Your task to perform on an android device: Clear the cart on ebay.com. Search for "beats solo 3" on ebay.com, select the first entry, add it to the cart, then select checkout. Image 0: 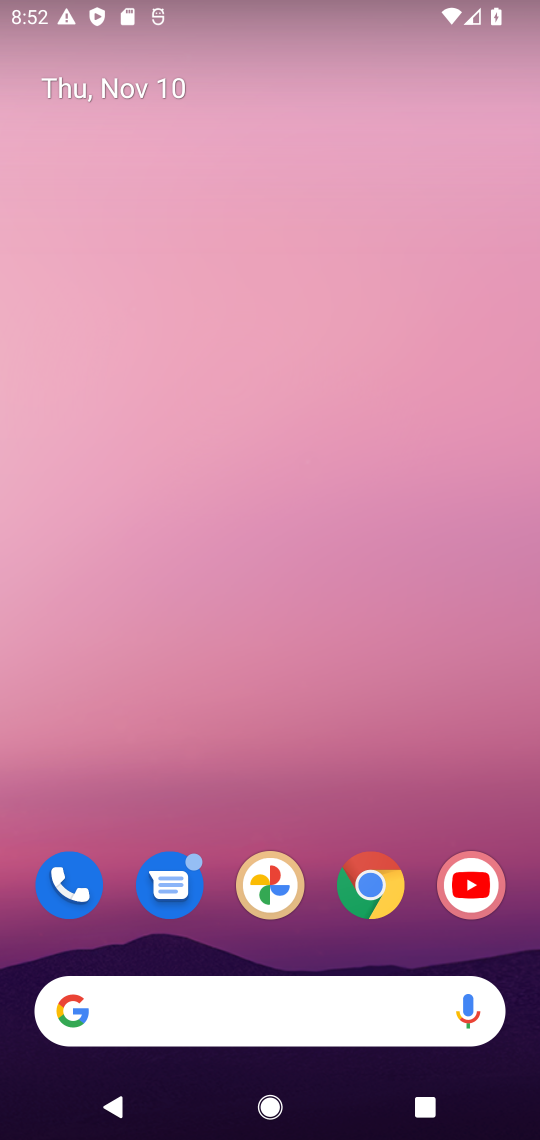
Step 0: click (375, 893)
Your task to perform on an android device: Clear the cart on ebay.com. Search for "beats solo 3" on ebay.com, select the first entry, add it to the cart, then select checkout. Image 1: 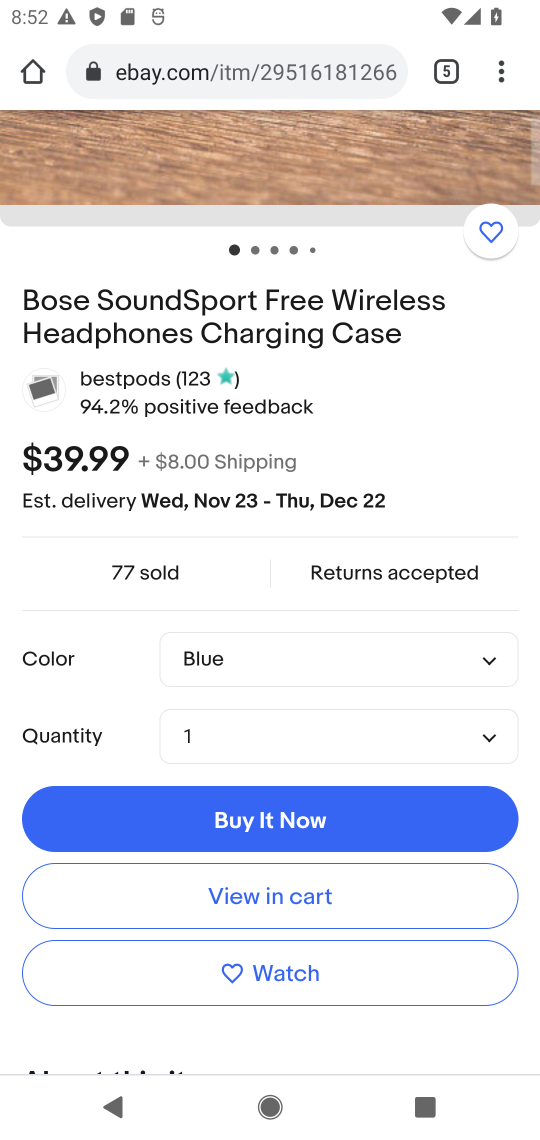
Step 1: drag from (374, 184) to (375, 888)
Your task to perform on an android device: Clear the cart on ebay.com. Search for "beats solo 3" on ebay.com, select the first entry, add it to the cart, then select checkout. Image 2: 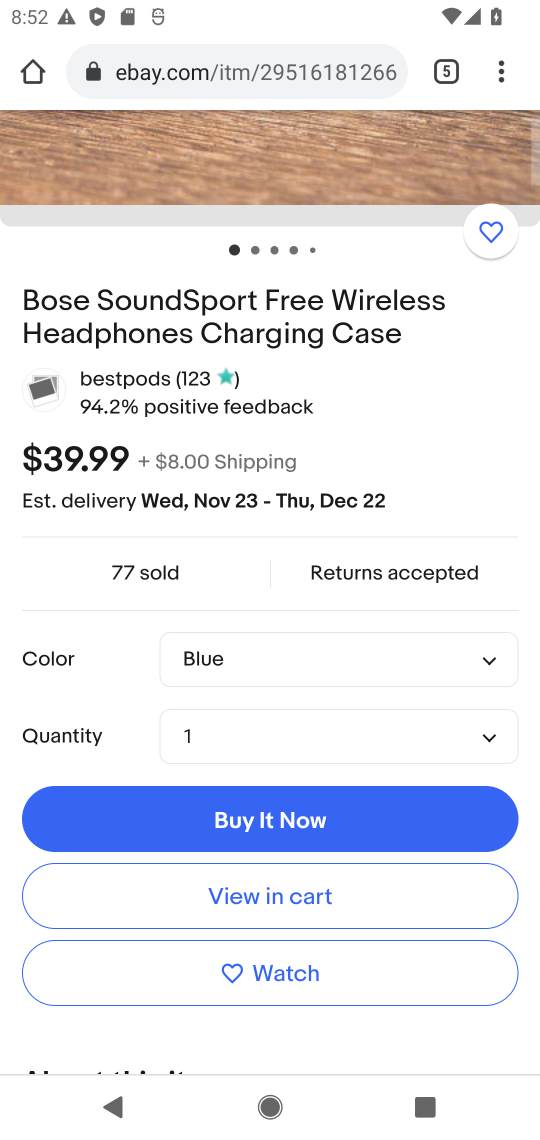
Step 2: drag from (384, 186) to (466, 506)
Your task to perform on an android device: Clear the cart on ebay.com. Search for "beats solo 3" on ebay.com, select the first entry, add it to the cart, then select checkout. Image 3: 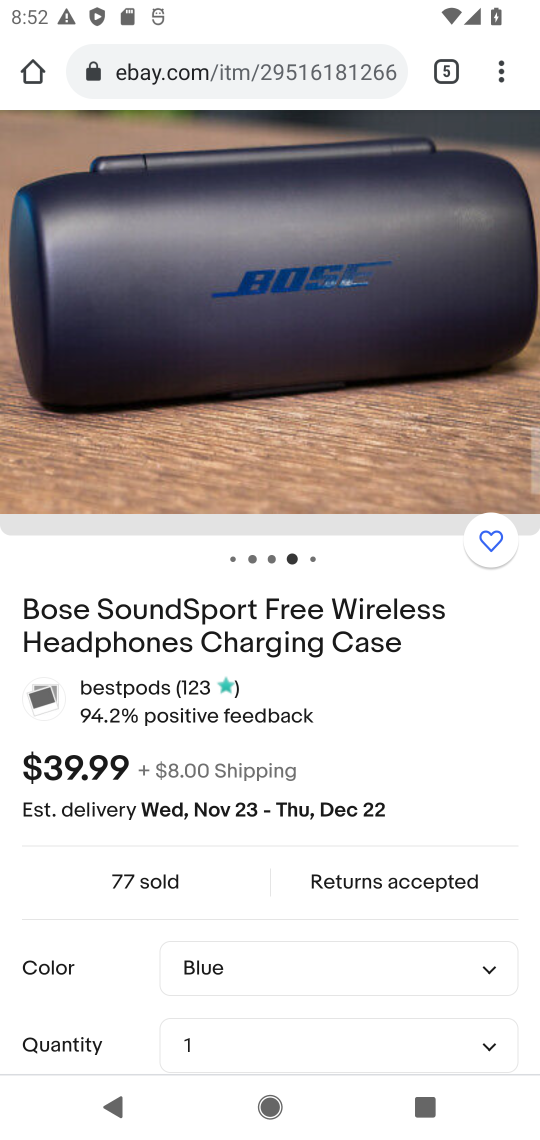
Step 3: drag from (424, 270) to (472, 568)
Your task to perform on an android device: Clear the cart on ebay.com. Search for "beats solo 3" on ebay.com, select the first entry, add it to the cart, then select checkout. Image 4: 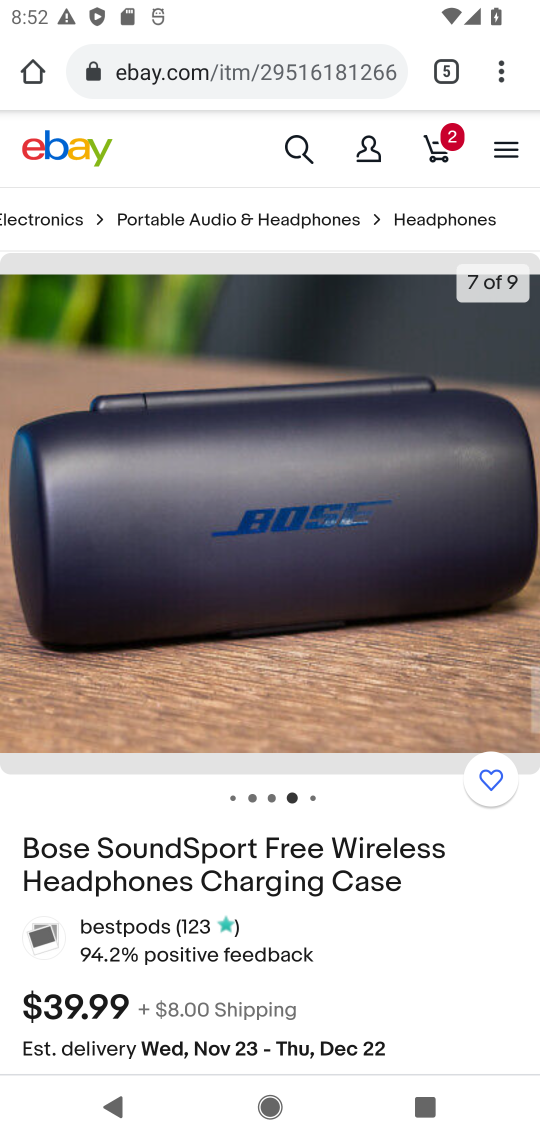
Step 4: click (297, 145)
Your task to perform on an android device: Clear the cart on ebay.com. Search for "beats solo 3" on ebay.com, select the first entry, add it to the cart, then select checkout. Image 5: 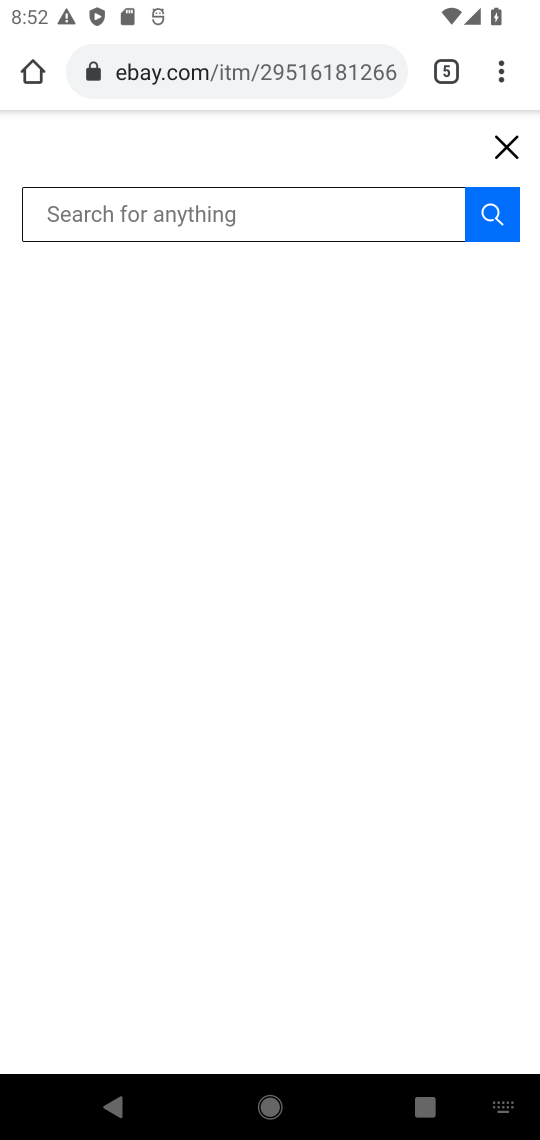
Step 5: type "beats solo 3"
Your task to perform on an android device: Clear the cart on ebay.com. Search for "beats solo 3" on ebay.com, select the first entry, add it to the cart, then select checkout. Image 6: 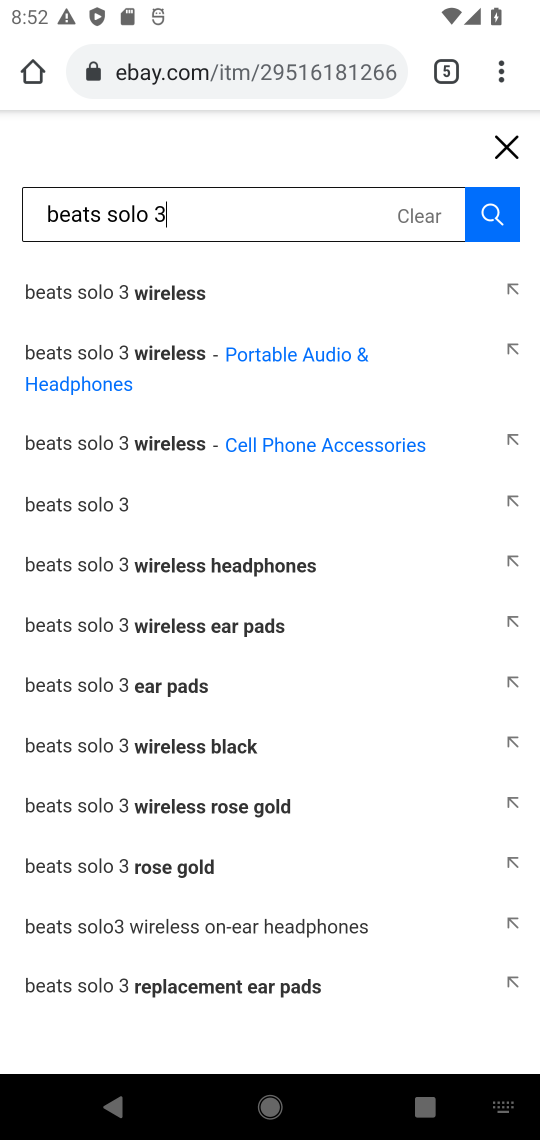
Step 6: click (143, 347)
Your task to perform on an android device: Clear the cart on ebay.com. Search for "beats solo 3" on ebay.com, select the first entry, add it to the cart, then select checkout. Image 7: 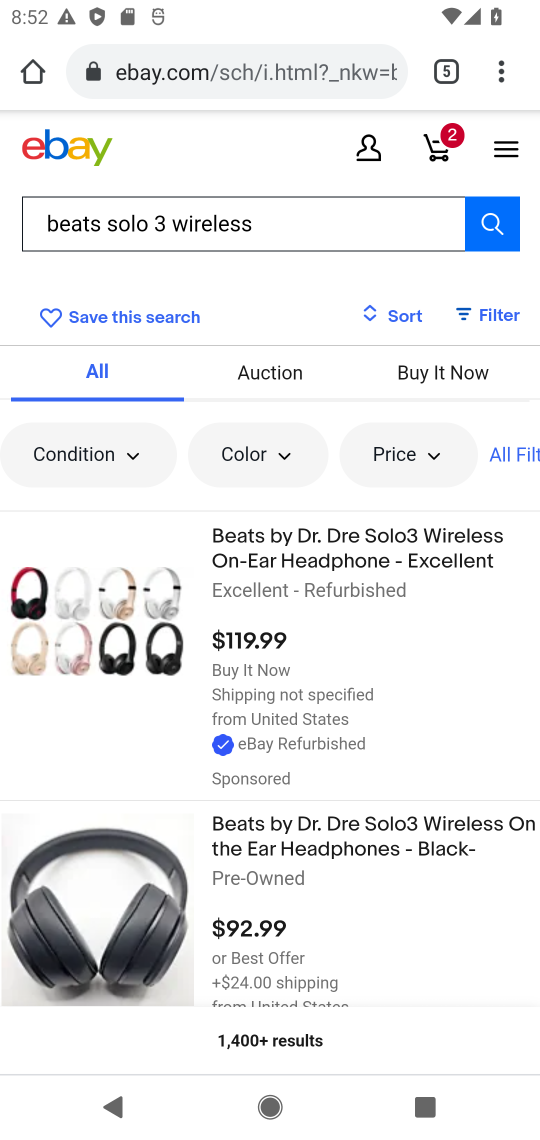
Step 7: click (391, 562)
Your task to perform on an android device: Clear the cart on ebay.com. Search for "beats solo 3" on ebay.com, select the first entry, add it to the cart, then select checkout. Image 8: 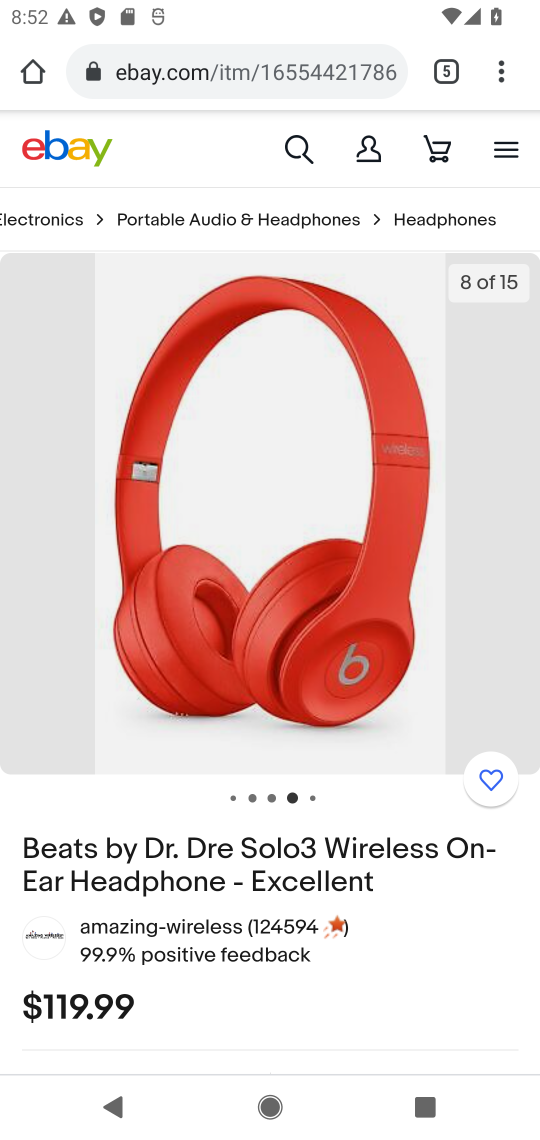
Step 8: drag from (410, 912) to (441, 524)
Your task to perform on an android device: Clear the cart on ebay.com. Search for "beats solo 3" on ebay.com, select the first entry, add it to the cart, then select checkout. Image 9: 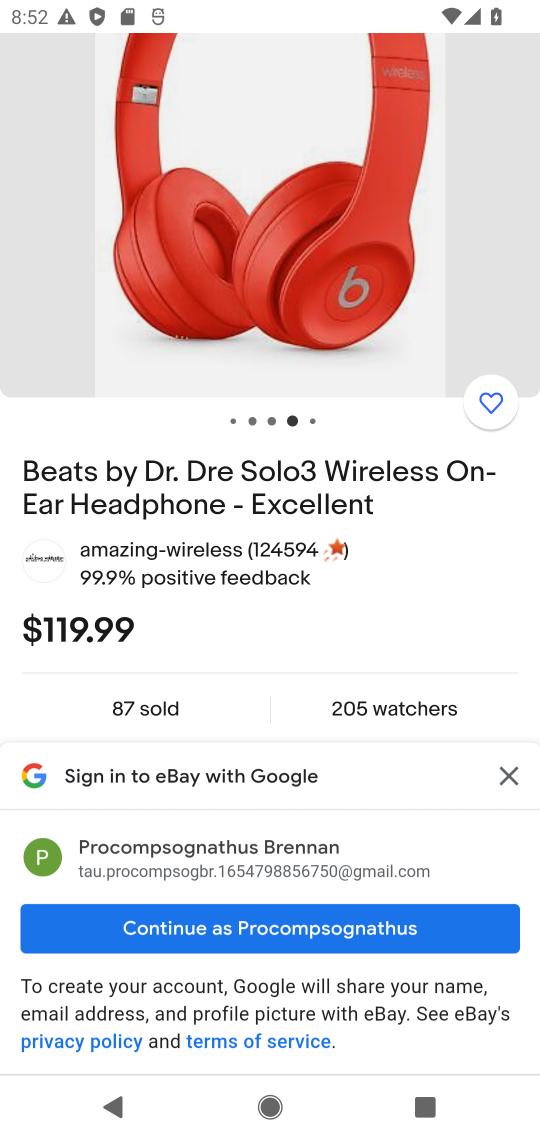
Step 9: click (326, 927)
Your task to perform on an android device: Clear the cart on ebay.com. Search for "beats solo 3" on ebay.com, select the first entry, add it to the cart, then select checkout. Image 10: 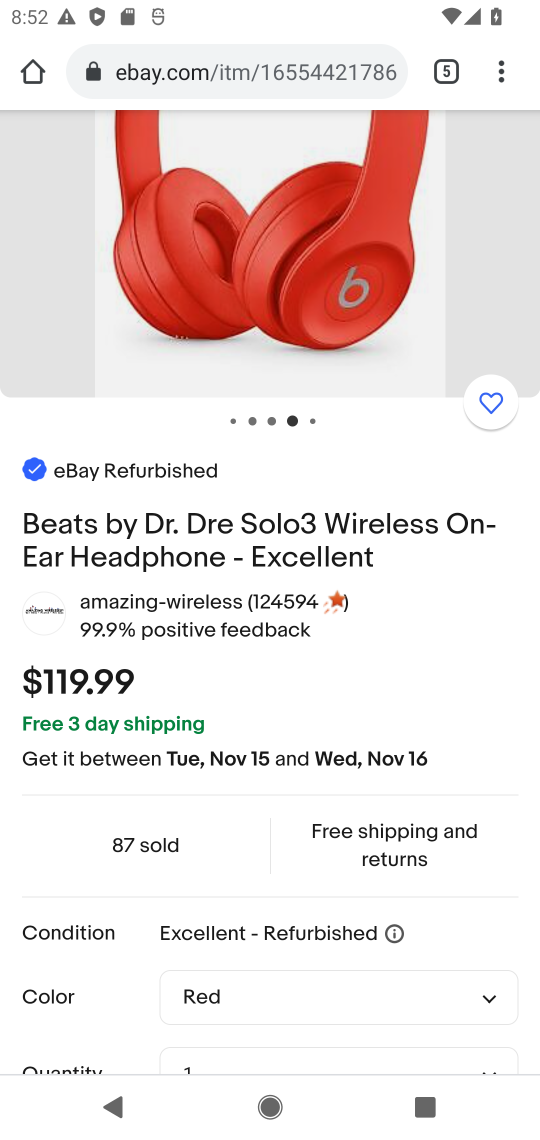
Step 10: drag from (387, 961) to (464, 582)
Your task to perform on an android device: Clear the cart on ebay.com. Search for "beats solo 3" on ebay.com, select the first entry, add it to the cart, then select checkout. Image 11: 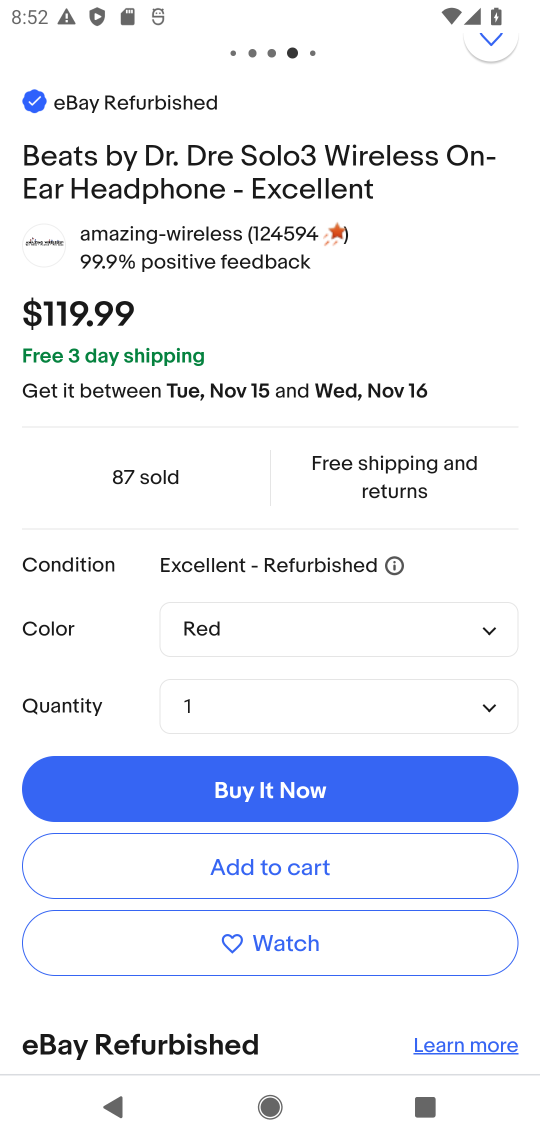
Step 11: click (315, 862)
Your task to perform on an android device: Clear the cart on ebay.com. Search for "beats solo 3" on ebay.com, select the first entry, add it to the cart, then select checkout. Image 12: 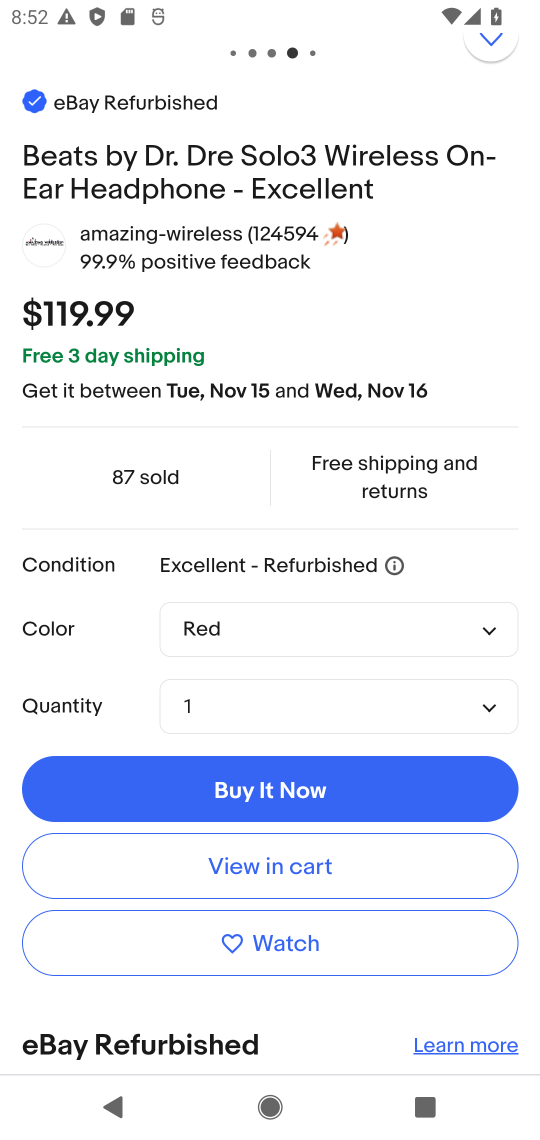
Step 12: click (315, 862)
Your task to perform on an android device: Clear the cart on ebay.com. Search for "beats solo 3" on ebay.com, select the first entry, add it to the cart, then select checkout. Image 13: 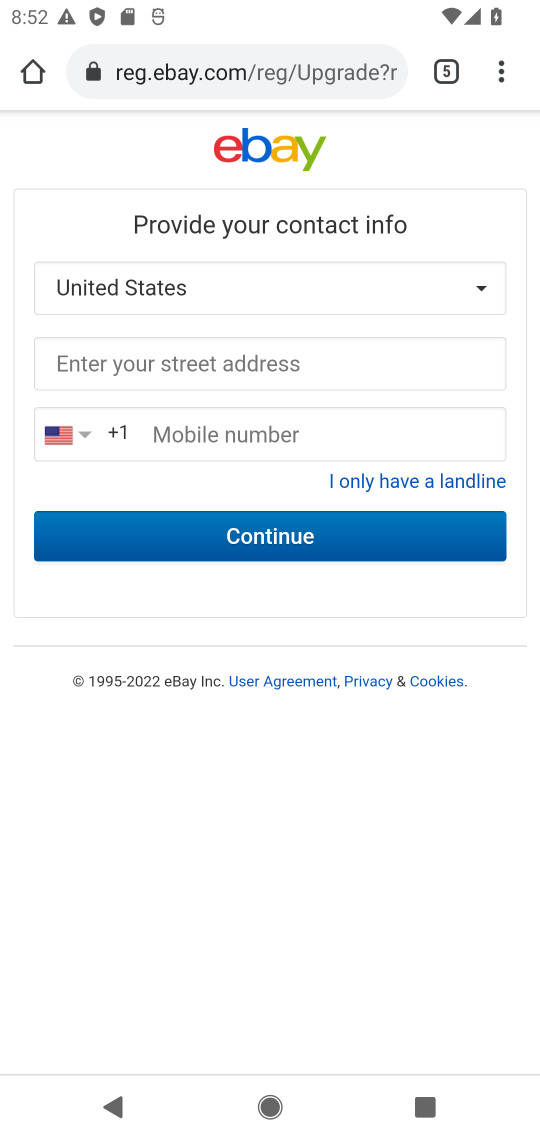
Step 13: task complete